Your task to perform on an android device: uninstall "Chime – Mobile Banking" Image 0: 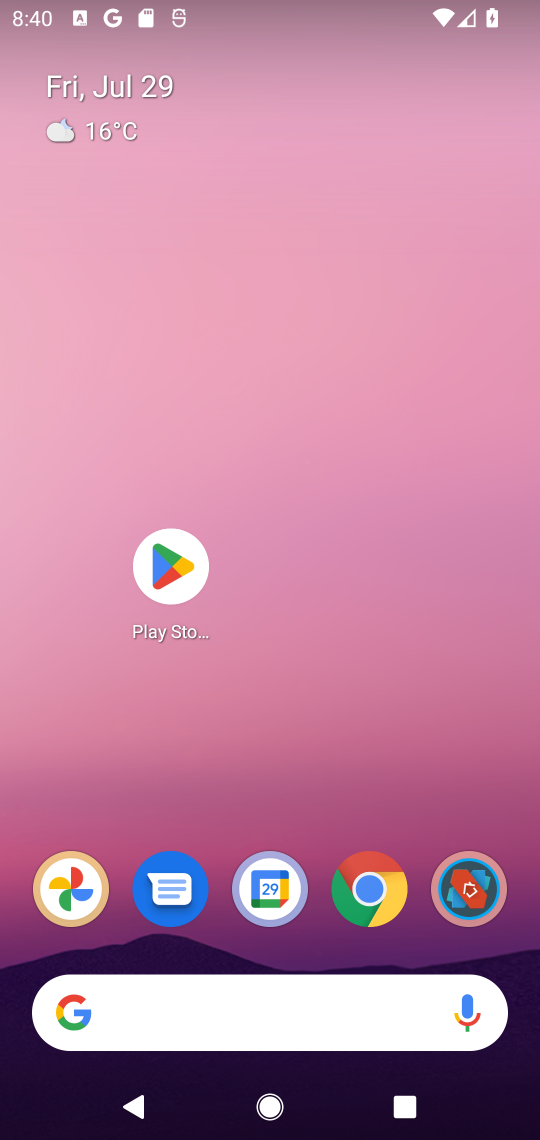
Step 0: click (177, 570)
Your task to perform on an android device: uninstall "Chime – Mobile Banking" Image 1: 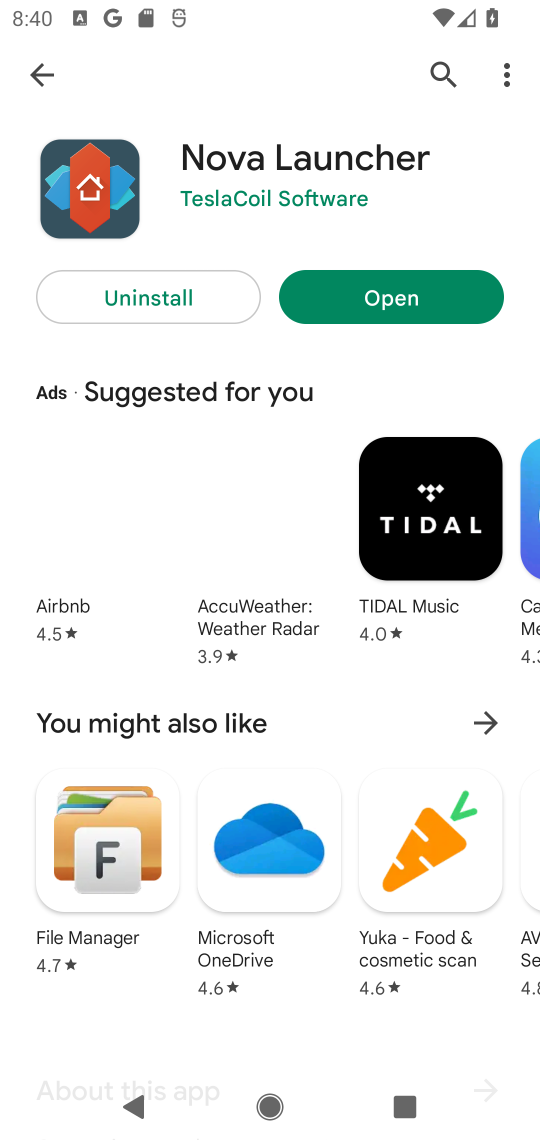
Step 1: click (452, 59)
Your task to perform on an android device: uninstall "Chime – Mobile Banking" Image 2: 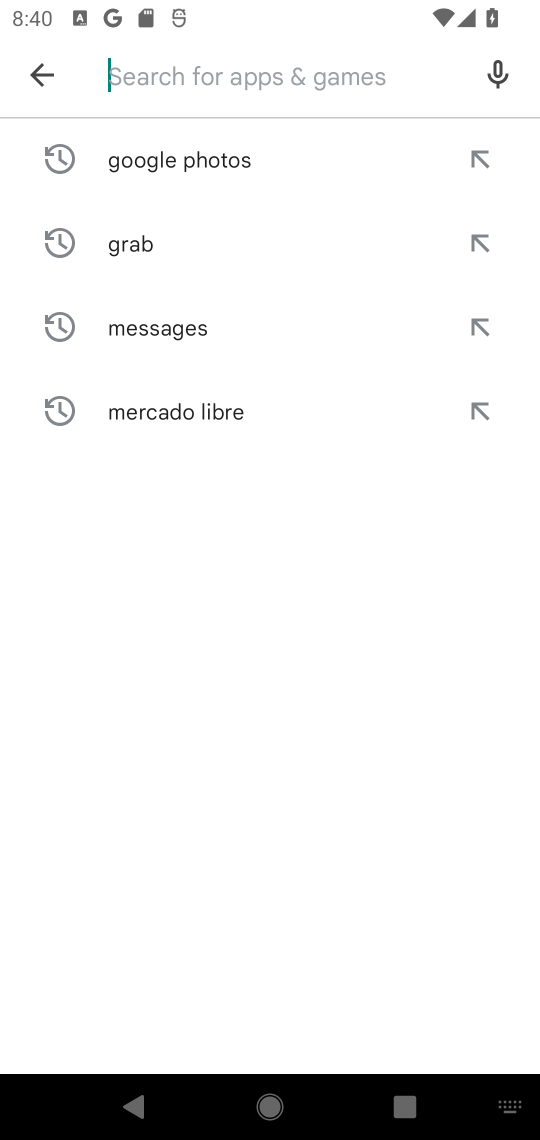
Step 2: type "Chime – Mobile Banking"
Your task to perform on an android device: uninstall "Chime – Mobile Banking" Image 3: 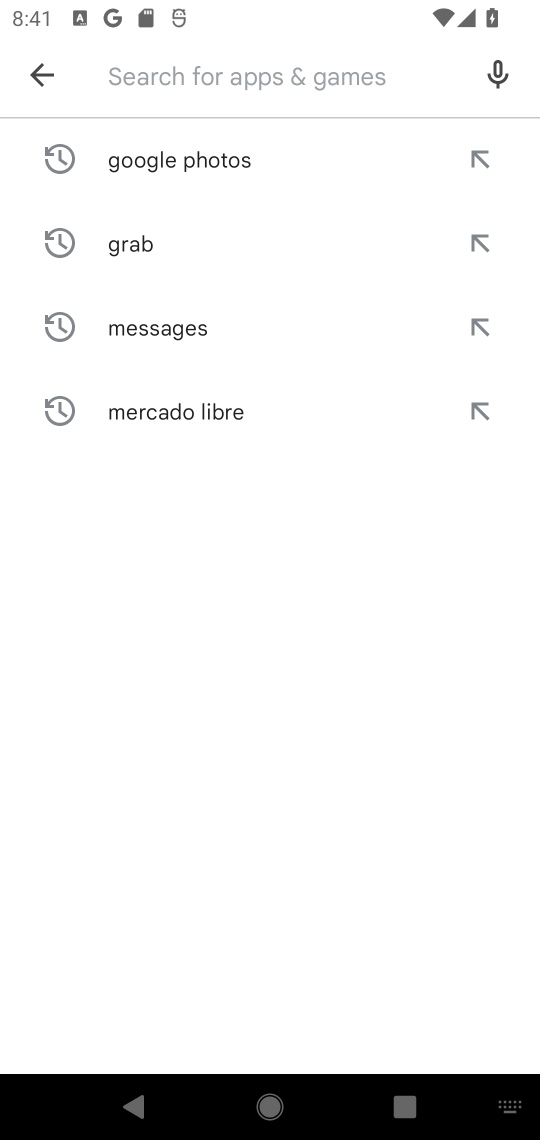
Step 3: click (236, 48)
Your task to perform on an android device: uninstall "Chime – Mobile Banking" Image 4: 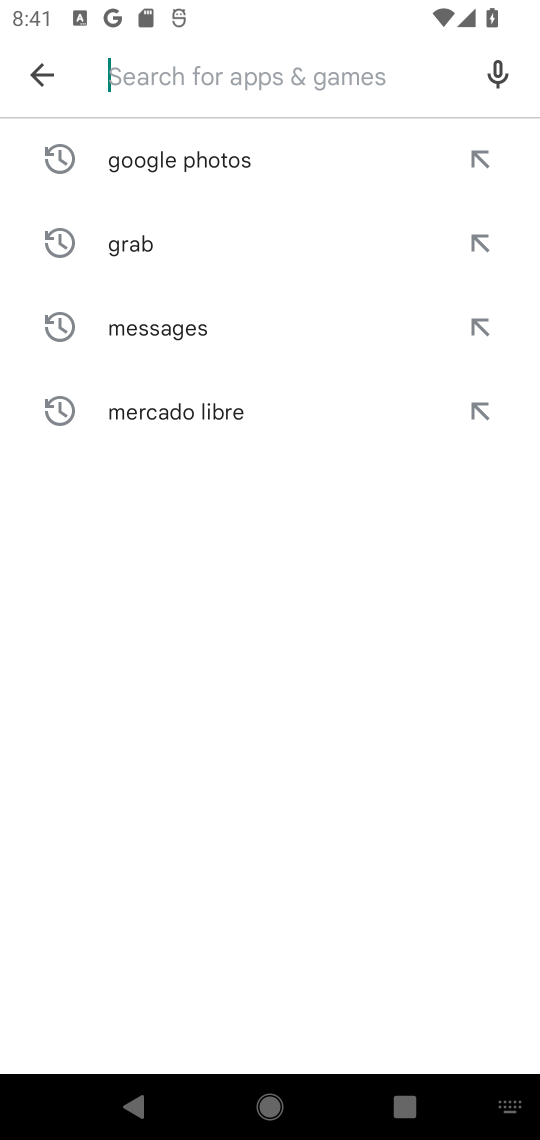
Step 4: click (240, 69)
Your task to perform on an android device: uninstall "Chime – Mobile Banking" Image 5: 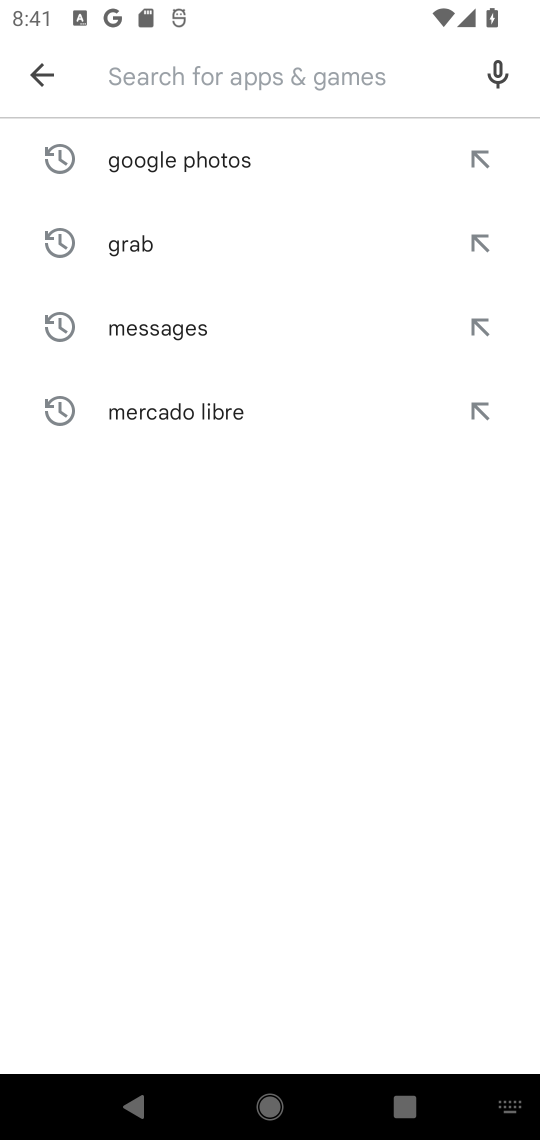
Step 5: type "Chime – Mobile Banking"
Your task to perform on an android device: uninstall "Chime – Mobile Banking" Image 6: 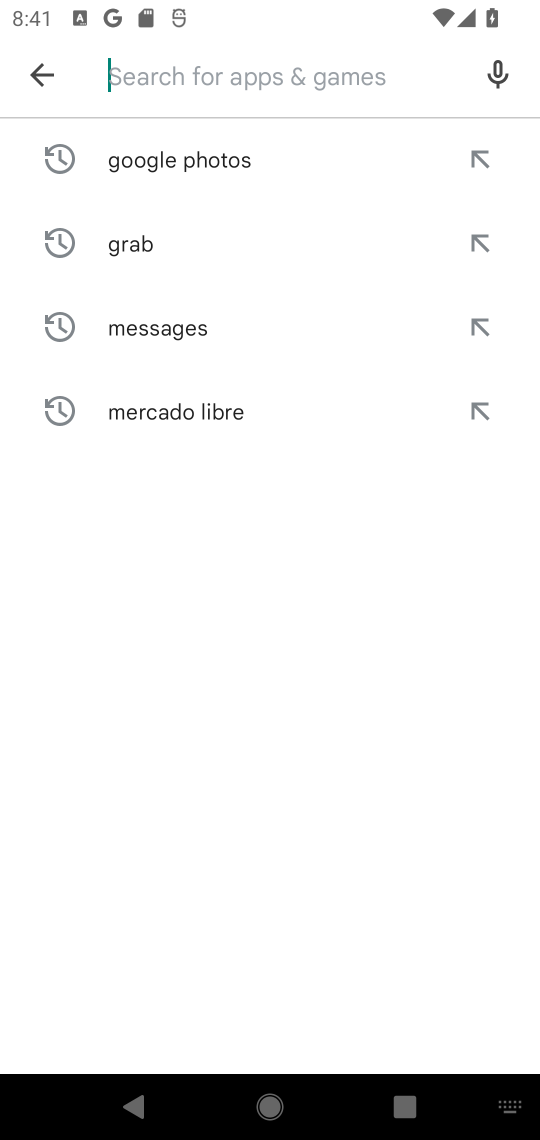
Step 6: type "chime- mobile banking"
Your task to perform on an android device: uninstall "Chime – Mobile Banking" Image 7: 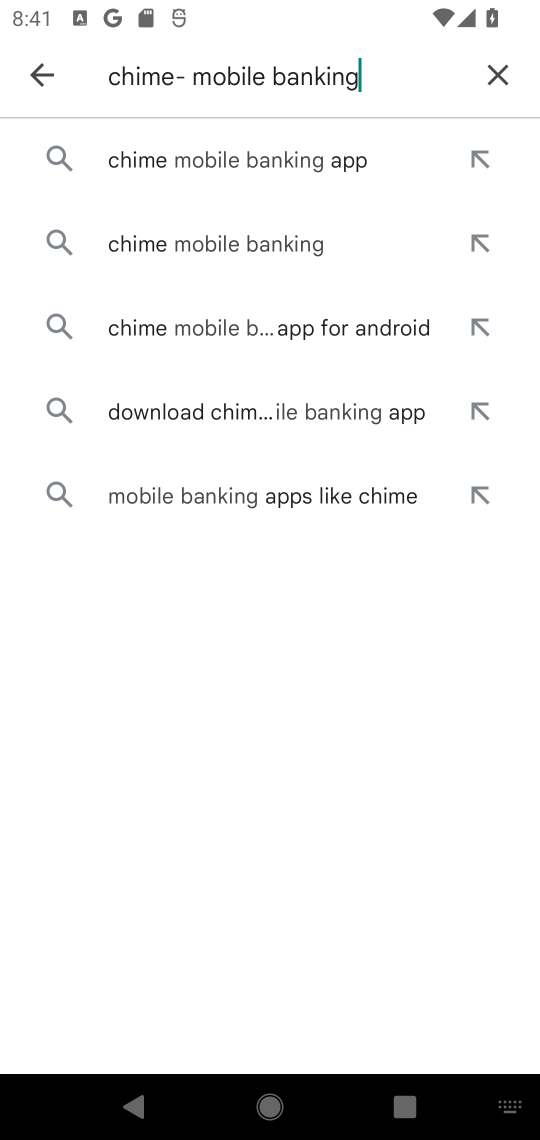
Step 7: click (285, 154)
Your task to perform on an android device: uninstall "Chime – Mobile Banking" Image 8: 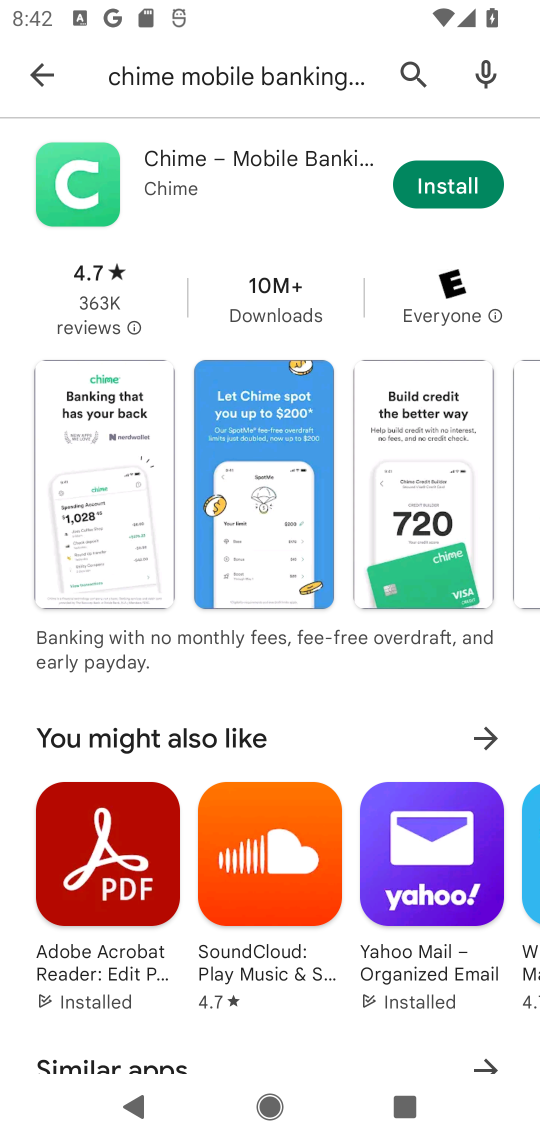
Step 8: task complete